Your task to perform on an android device: turn on airplane mode Image 0: 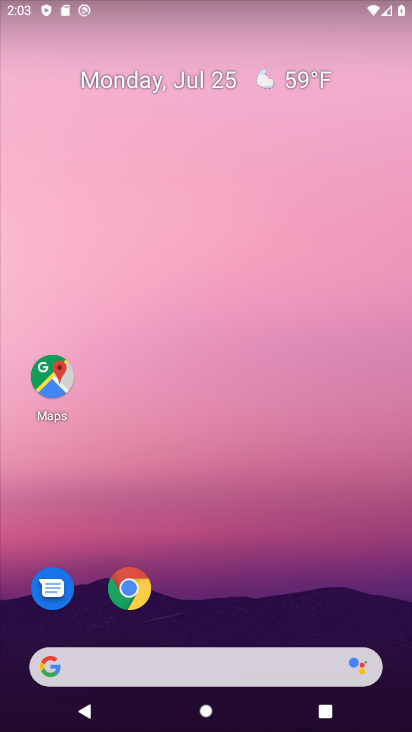
Step 0: drag from (348, 8) to (362, 462)
Your task to perform on an android device: turn on airplane mode Image 1: 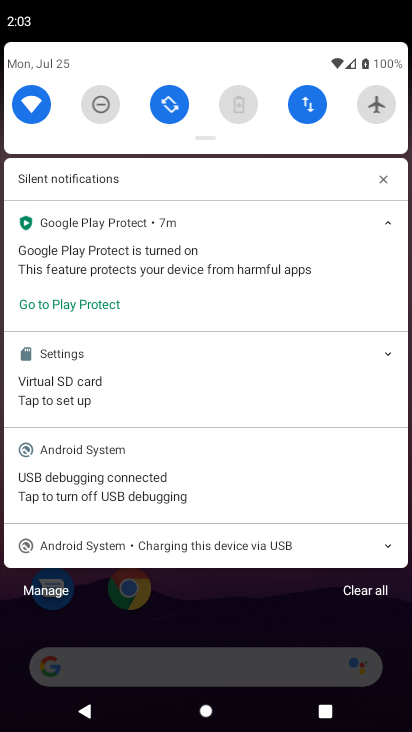
Step 1: click (377, 115)
Your task to perform on an android device: turn on airplane mode Image 2: 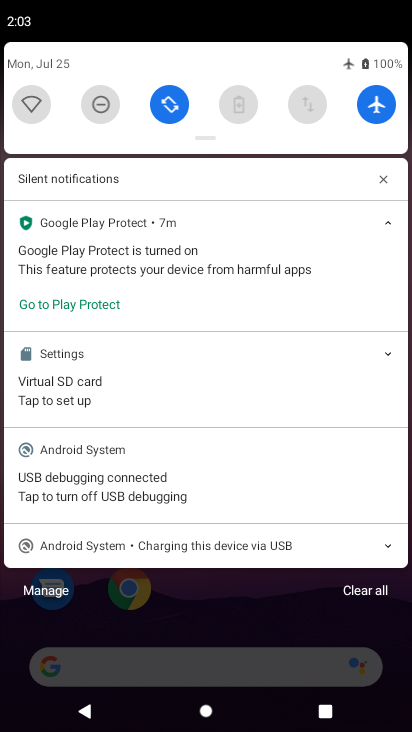
Step 2: task complete